Your task to perform on an android device: turn on wifi Image 0: 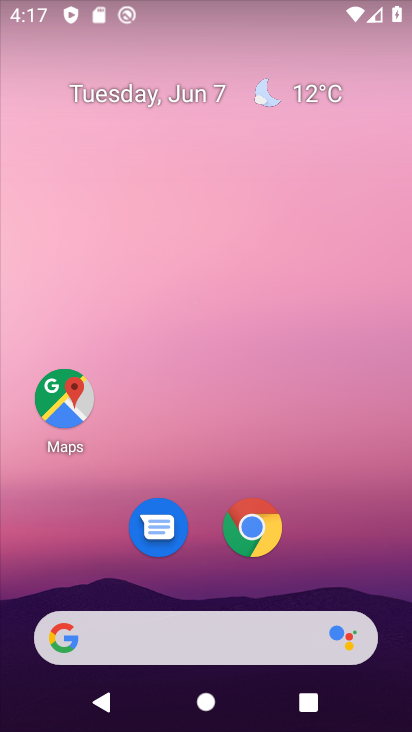
Step 0: drag from (322, 560) to (284, 281)
Your task to perform on an android device: turn on wifi Image 1: 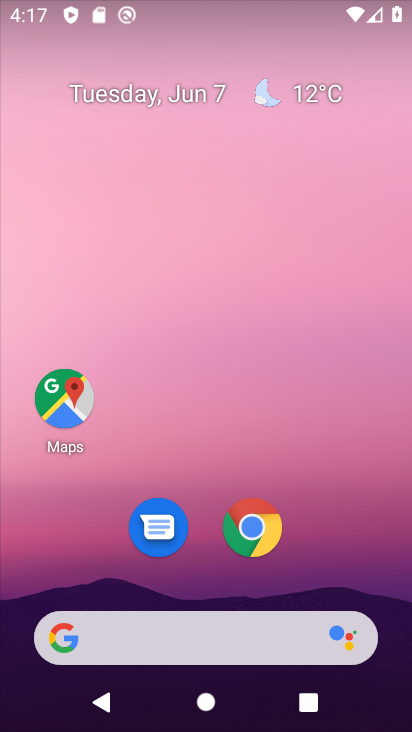
Step 1: drag from (323, 540) to (226, 0)
Your task to perform on an android device: turn on wifi Image 2: 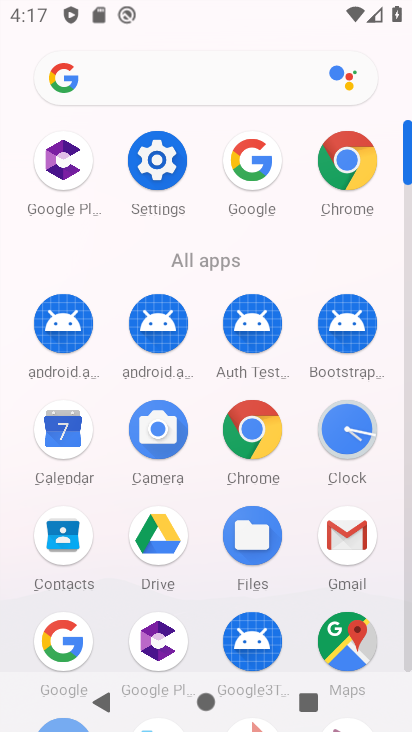
Step 2: click (157, 162)
Your task to perform on an android device: turn on wifi Image 3: 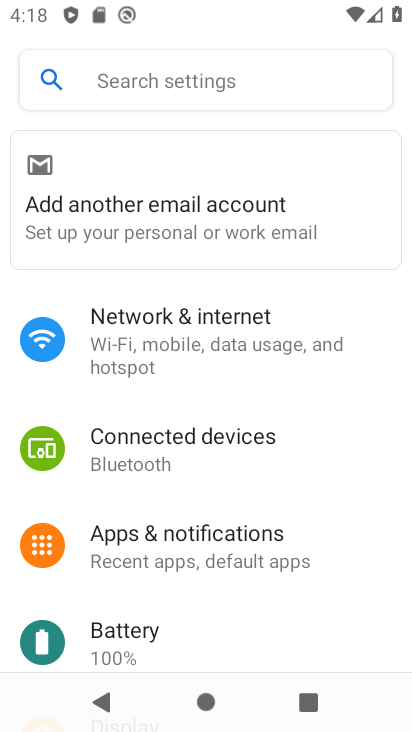
Step 3: click (183, 322)
Your task to perform on an android device: turn on wifi Image 4: 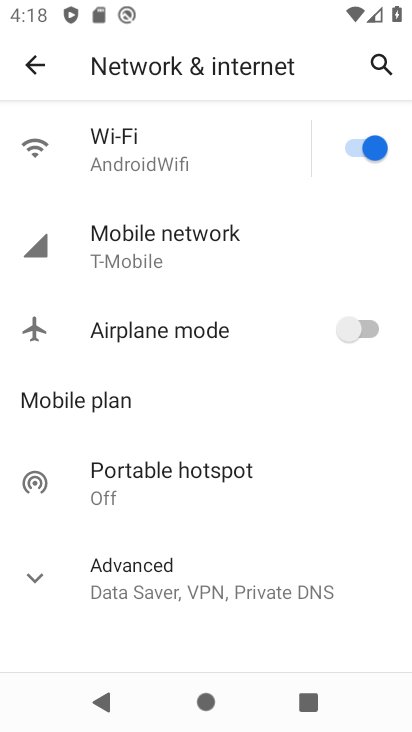
Step 4: task complete